Your task to perform on an android device: Open settings Image 0: 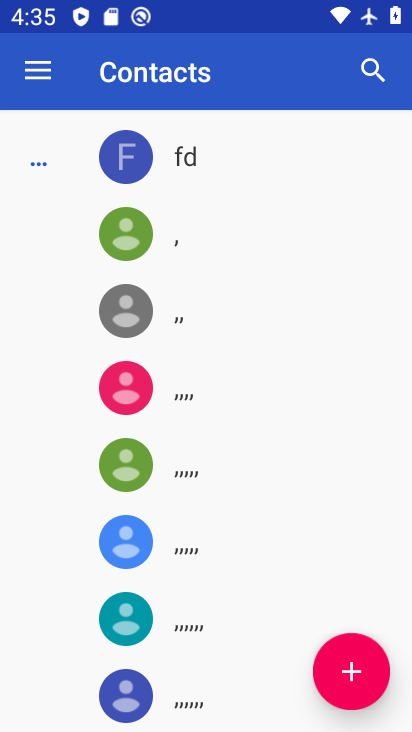
Step 0: press home button
Your task to perform on an android device: Open settings Image 1: 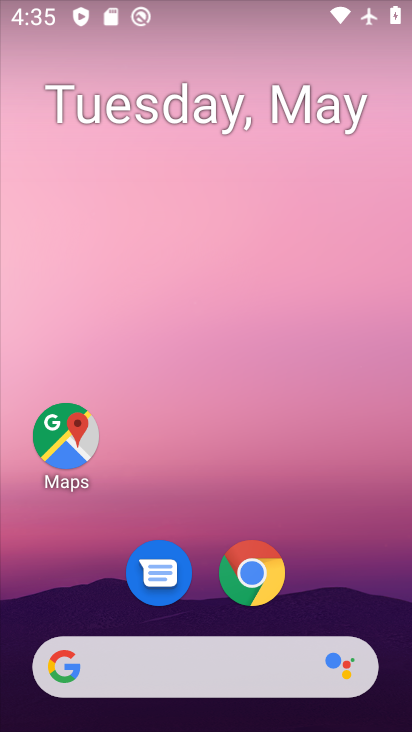
Step 1: drag from (339, 534) to (255, 133)
Your task to perform on an android device: Open settings Image 2: 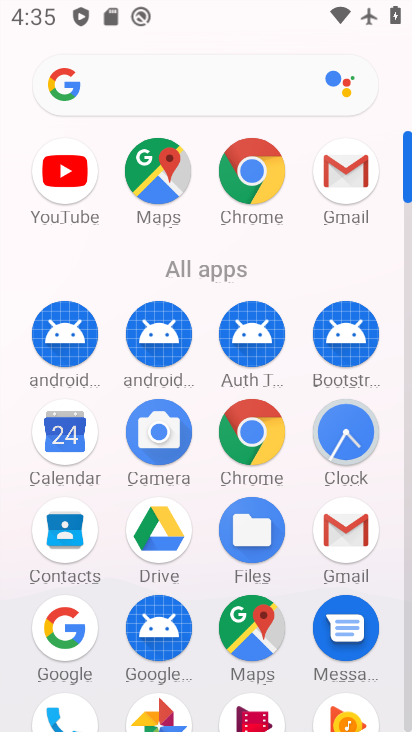
Step 2: drag from (303, 577) to (314, 187)
Your task to perform on an android device: Open settings Image 3: 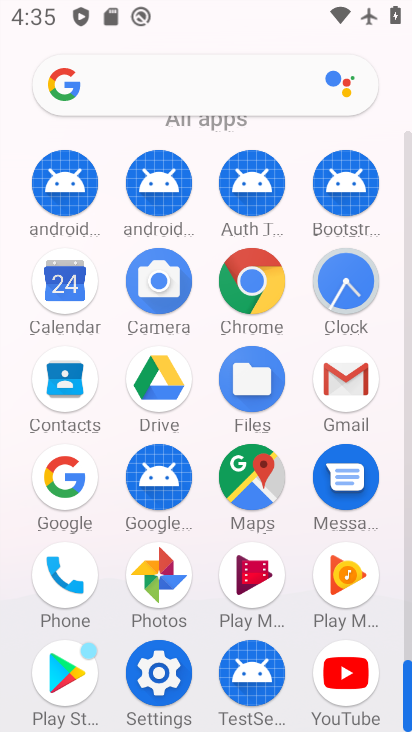
Step 3: click (159, 665)
Your task to perform on an android device: Open settings Image 4: 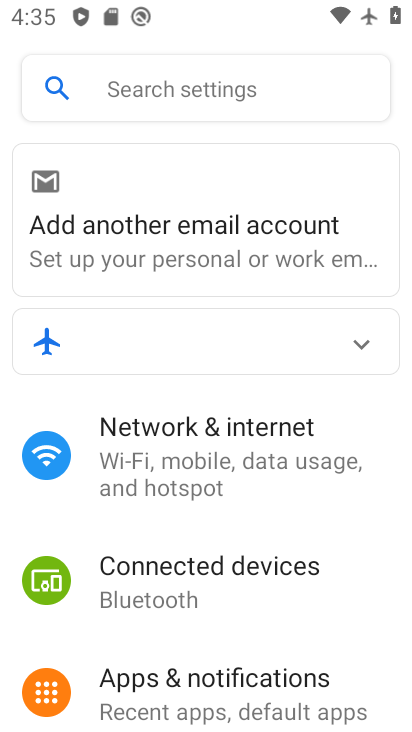
Step 4: task complete